Your task to perform on an android device: Go to Yahoo.com Image 0: 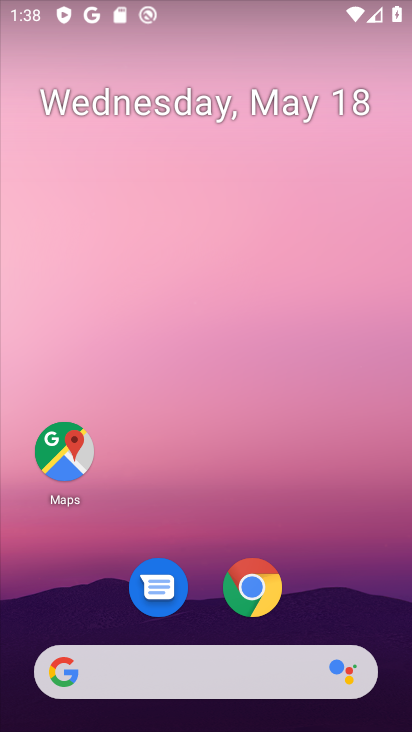
Step 0: drag from (333, 579) to (311, 88)
Your task to perform on an android device: Go to Yahoo.com Image 1: 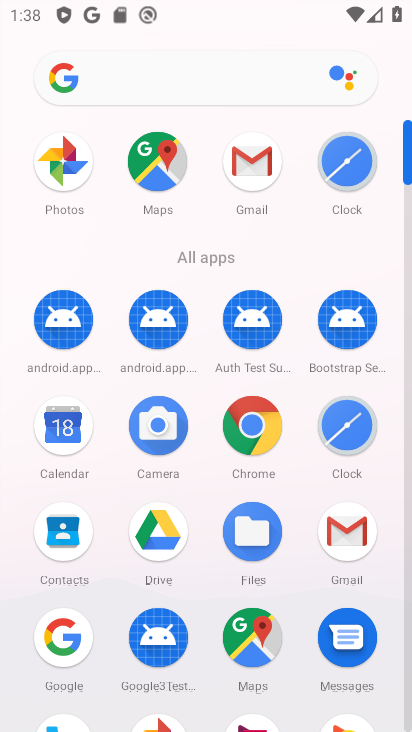
Step 1: click (267, 418)
Your task to perform on an android device: Go to Yahoo.com Image 2: 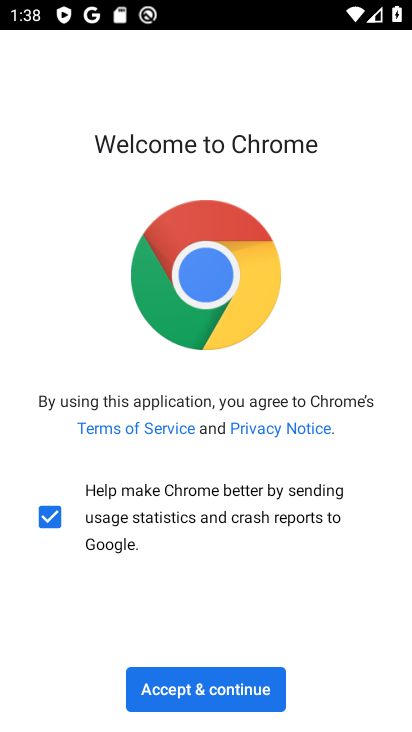
Step 2: click (237, 668)
Your task to perform on an android device: Go to Yahoo.com Image 3: 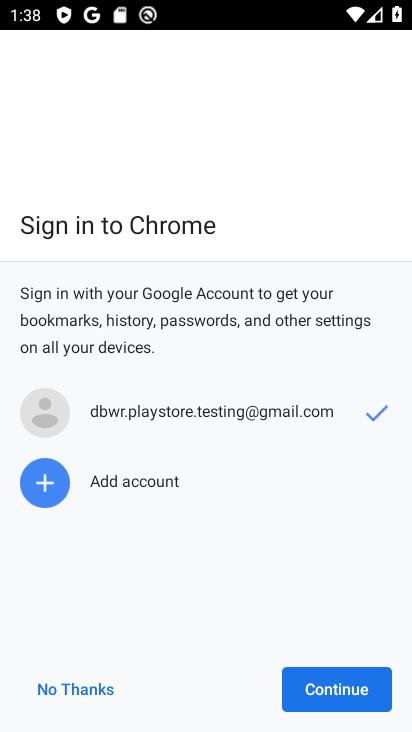
Step 3: click (340, 702)
Your task to perform on an android device: Go to Yahoo.com Image 4: 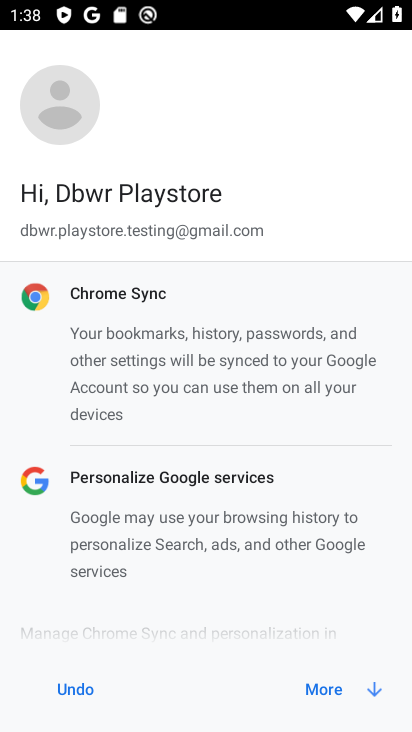
Step 4: click (340, 702)
Your task to perform on an android device: Go to Yahoo.com Image 5: 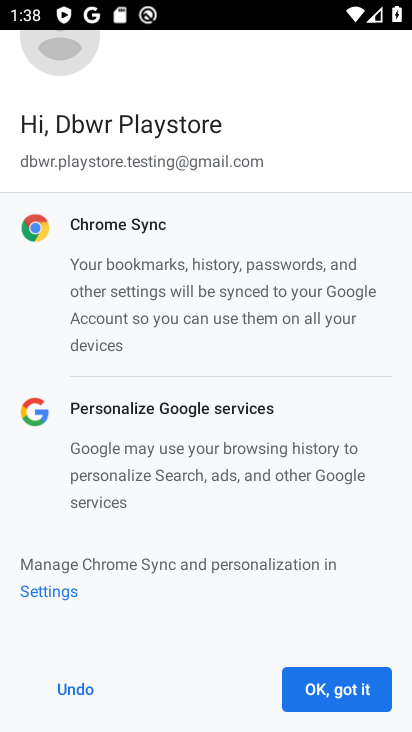
Step 5: click (340, 702)
Your task to perform on an android device: Go to Yahoo.com Image 6: 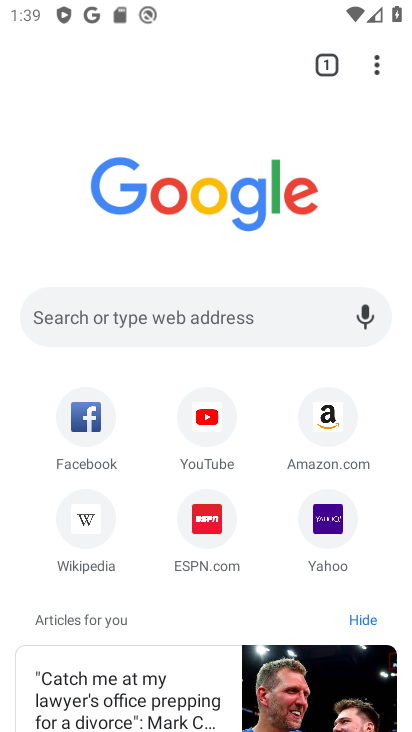
Step 6: click (341, 515)
Your task to perform on an android device: Go to Yahoo.com Image 7: 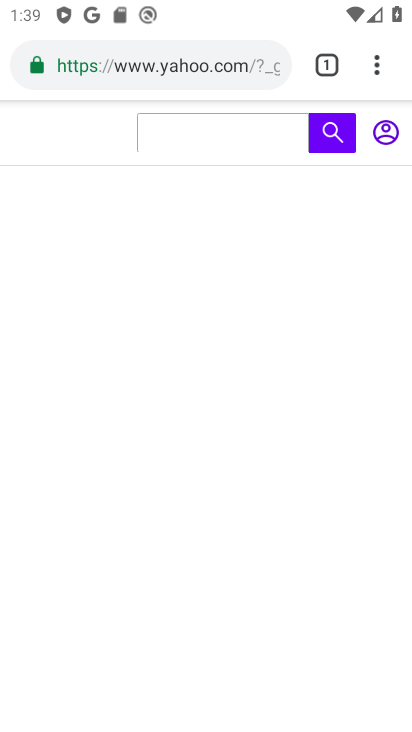
Step 7: task complete